Your task to perform on an android device: Clear the shopping cart on ebay. Search for "razer blade" on ebay, select the first entry, add it to the cart, then select checkout. Image 0: 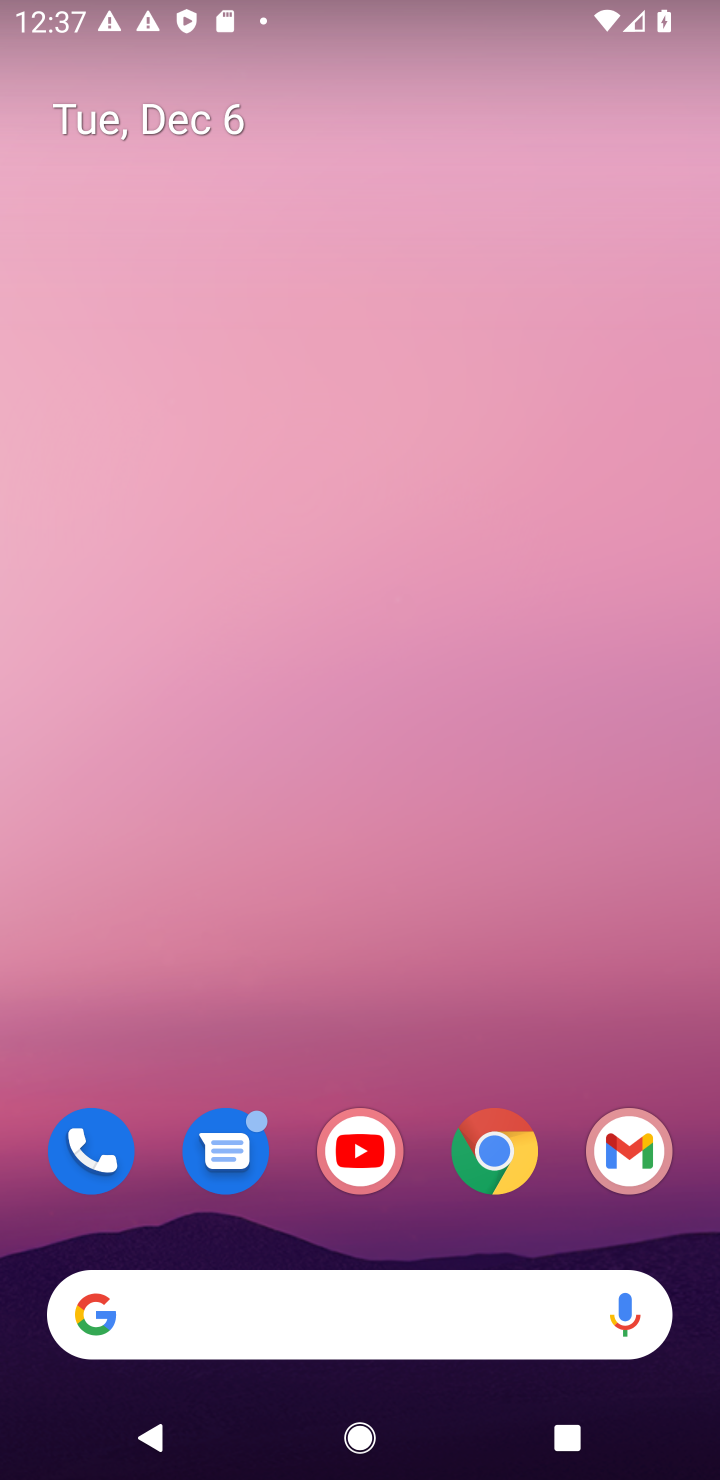
Step 0: click (487, 1174)
Your task to perform on an android device: Clear the shopping cart on ebay. Search for "razer blade" on ebay, select the first entry, add it to the cart, then select checkout. Image 1: 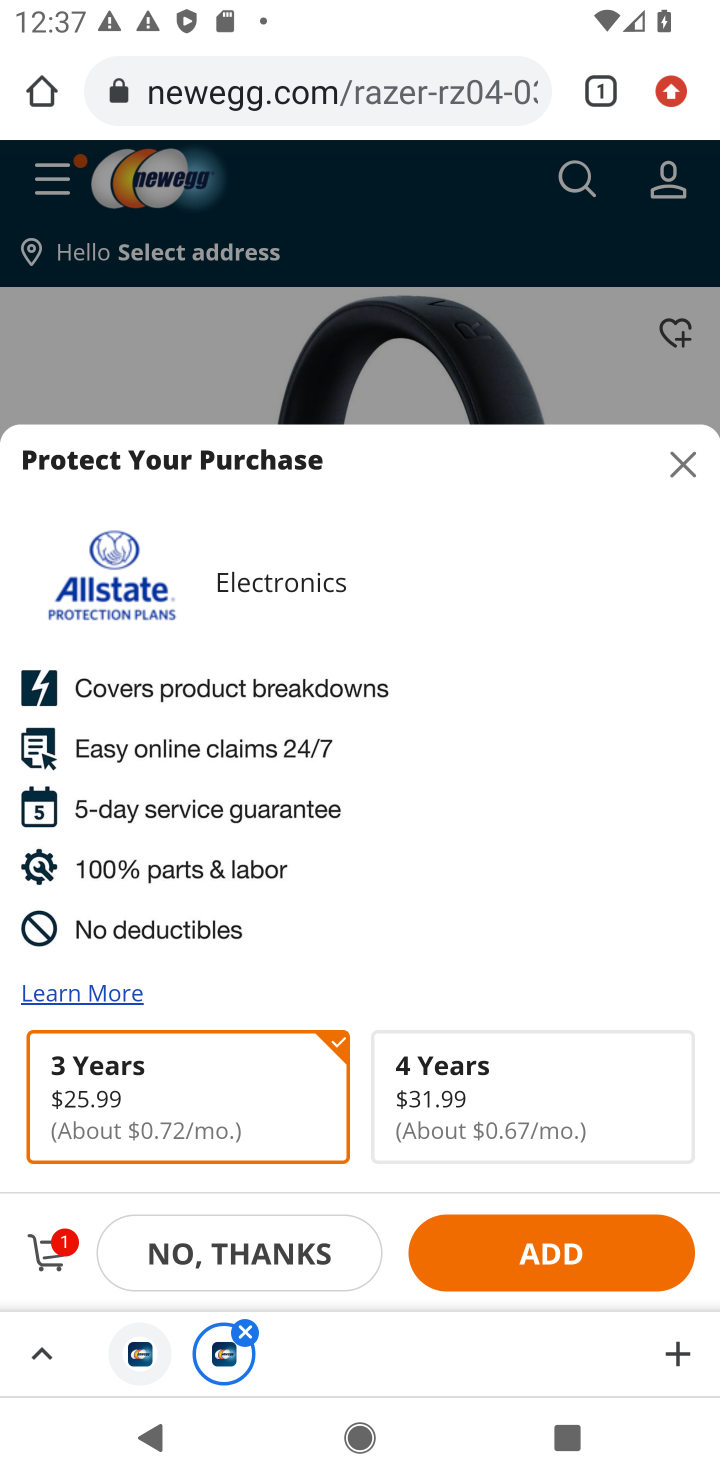
Step 1: click (260, 103)
Your task to perform on an android device: Clear the shopping cart on ebay. Search for "razer blade" on ebay, select the first entry, add it to the cart, then select checkout. Image 2: 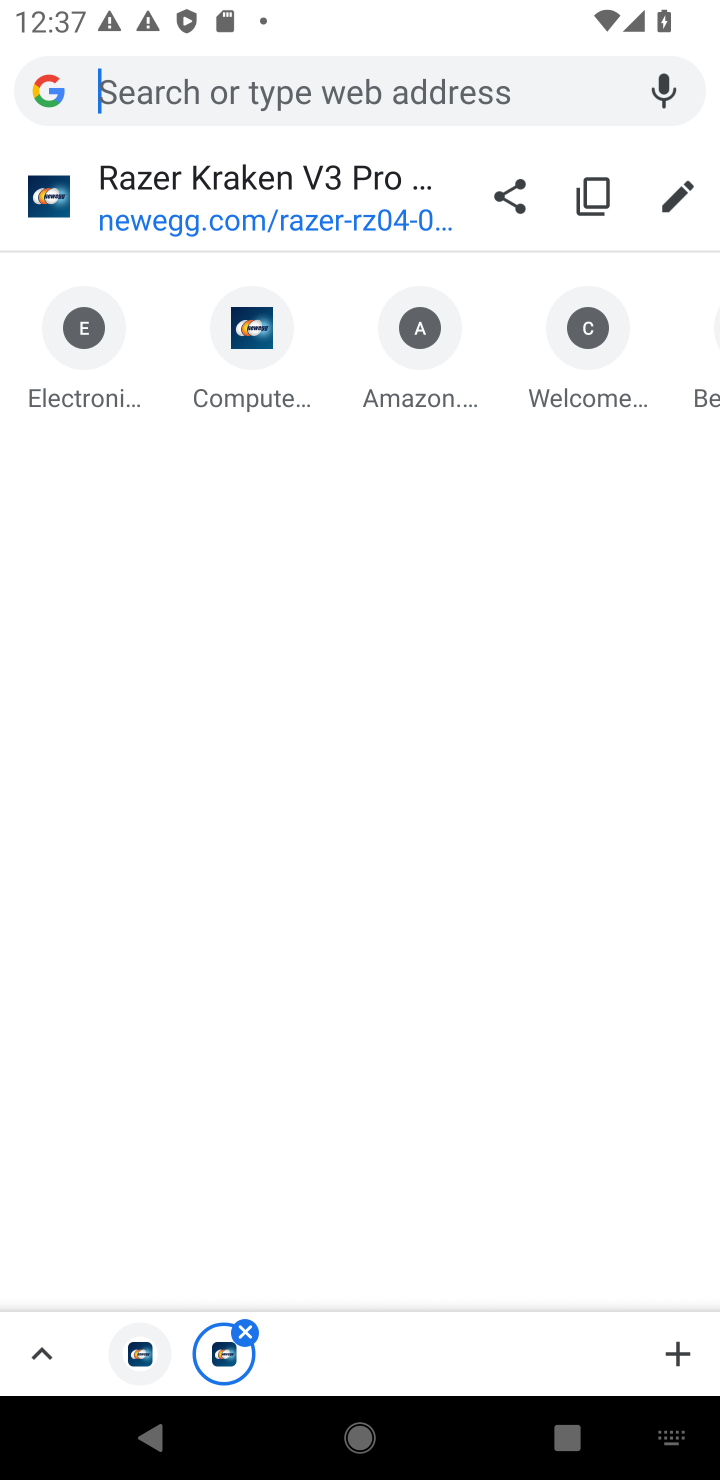
Step 2: type "ebay.com"
Your task to perform on an android device: Clear the shopping cart on ebay. Search for "razer blade" on ebay, select the first entry, add it to the cart, then select checkout. Image 3: 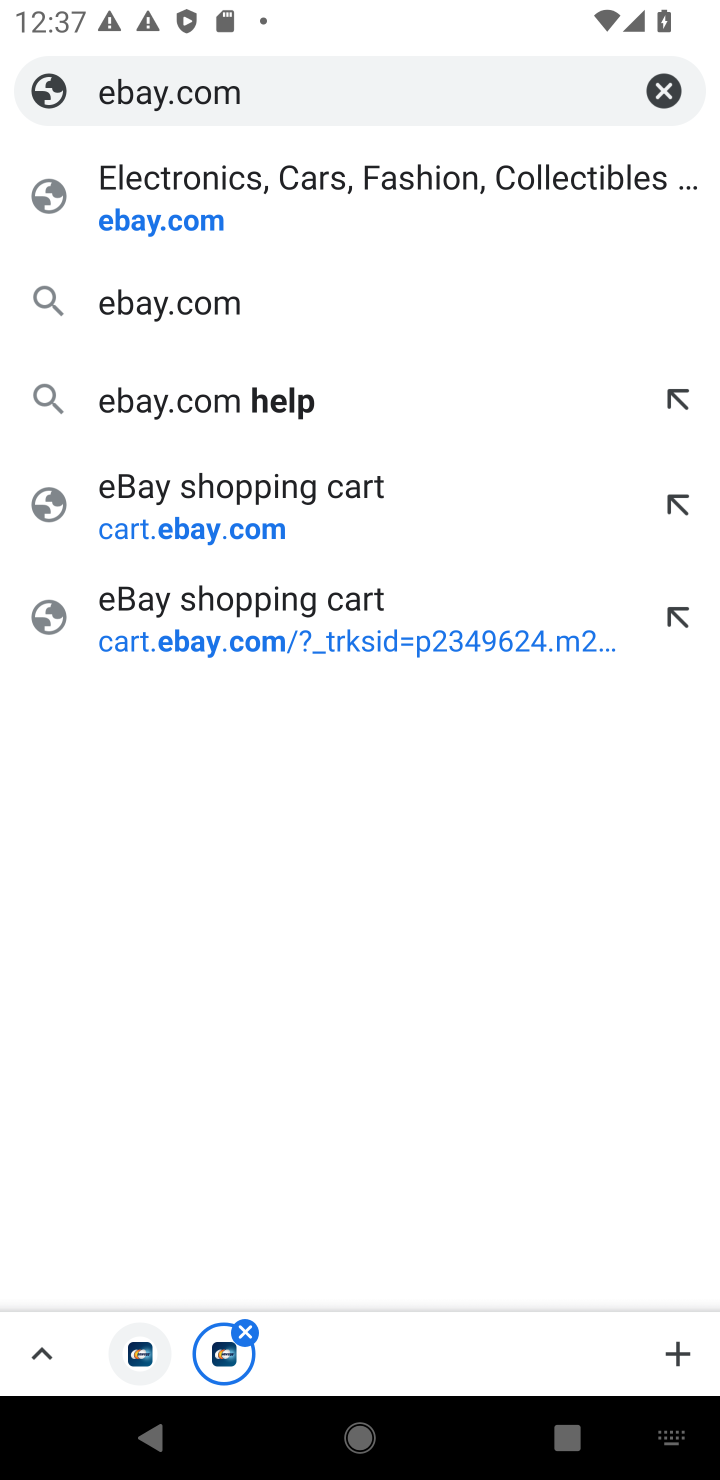
Step 3: click (140, 238)
Your task to perform on an android device: Clear the shopping cart on ebay. Search for "razer blade" on ebay, select the first entry, add it to the cart, then select checkout. Image 4: 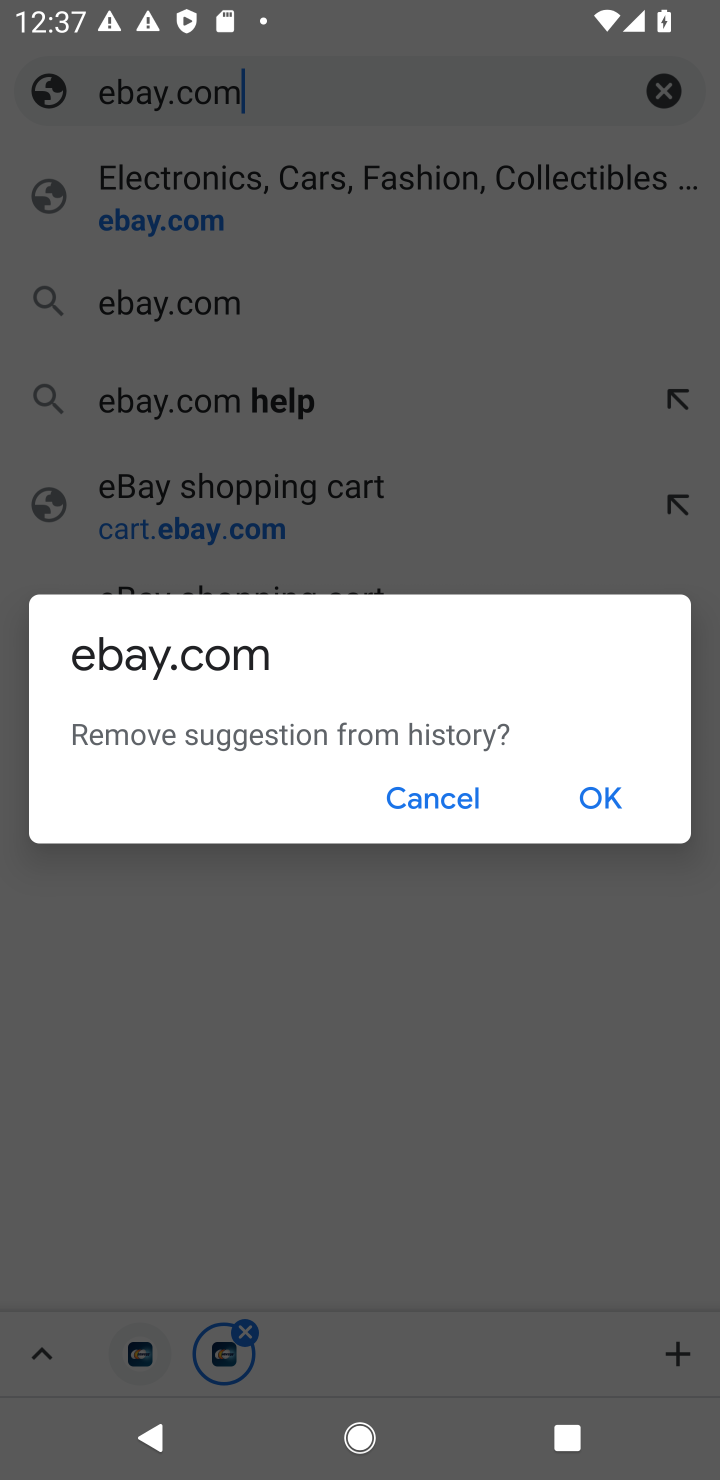
Step 4: click (410, 808)
Your task to perform on an android device: Clear the shopping cart on ebay. Search for "razer blade" on ebay, select the first entry, add it to the cart, then select checkout. Image 5: 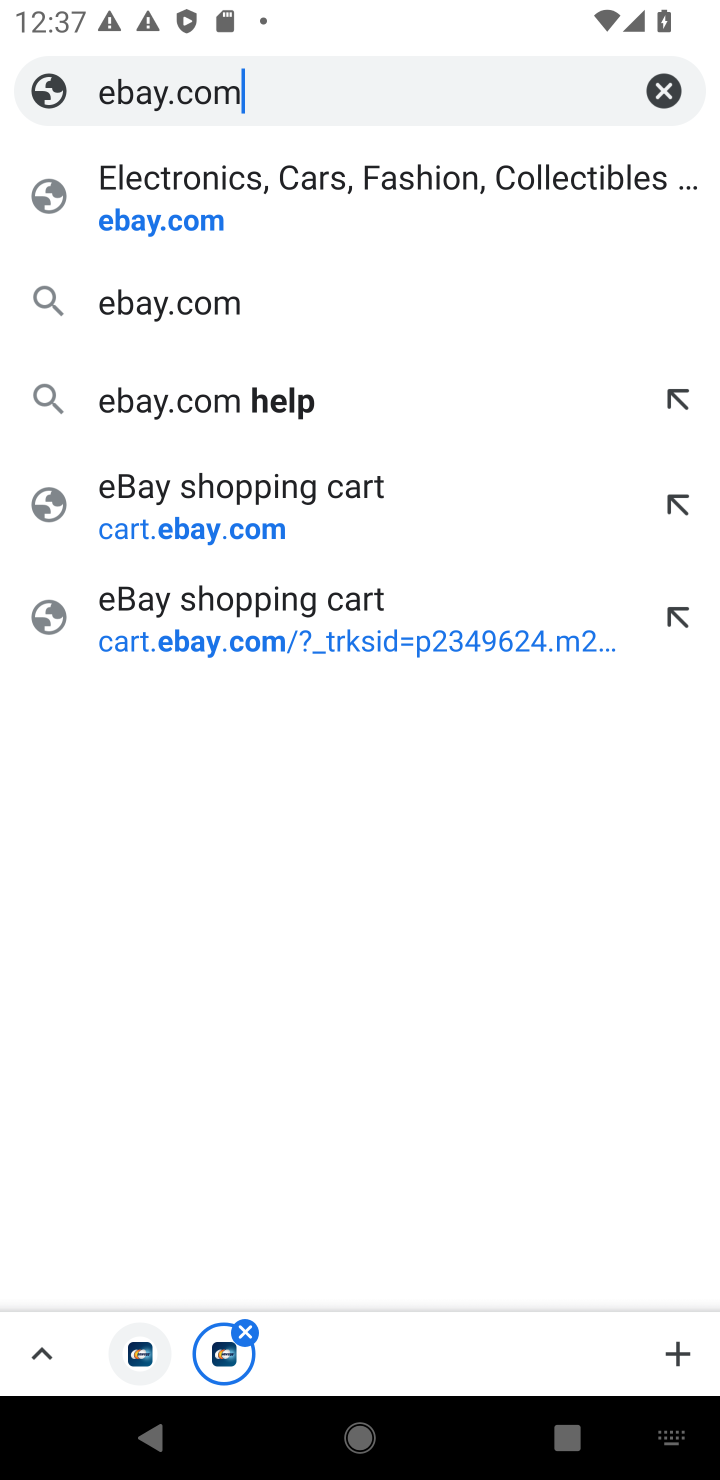
Step 5: click (137, 214)
Your task to perform on an android device: Clear the shopping cart on ebay. Search for "razer blade" on ebay, select the first entry, add it to the cart, then select checkout. Image 6: 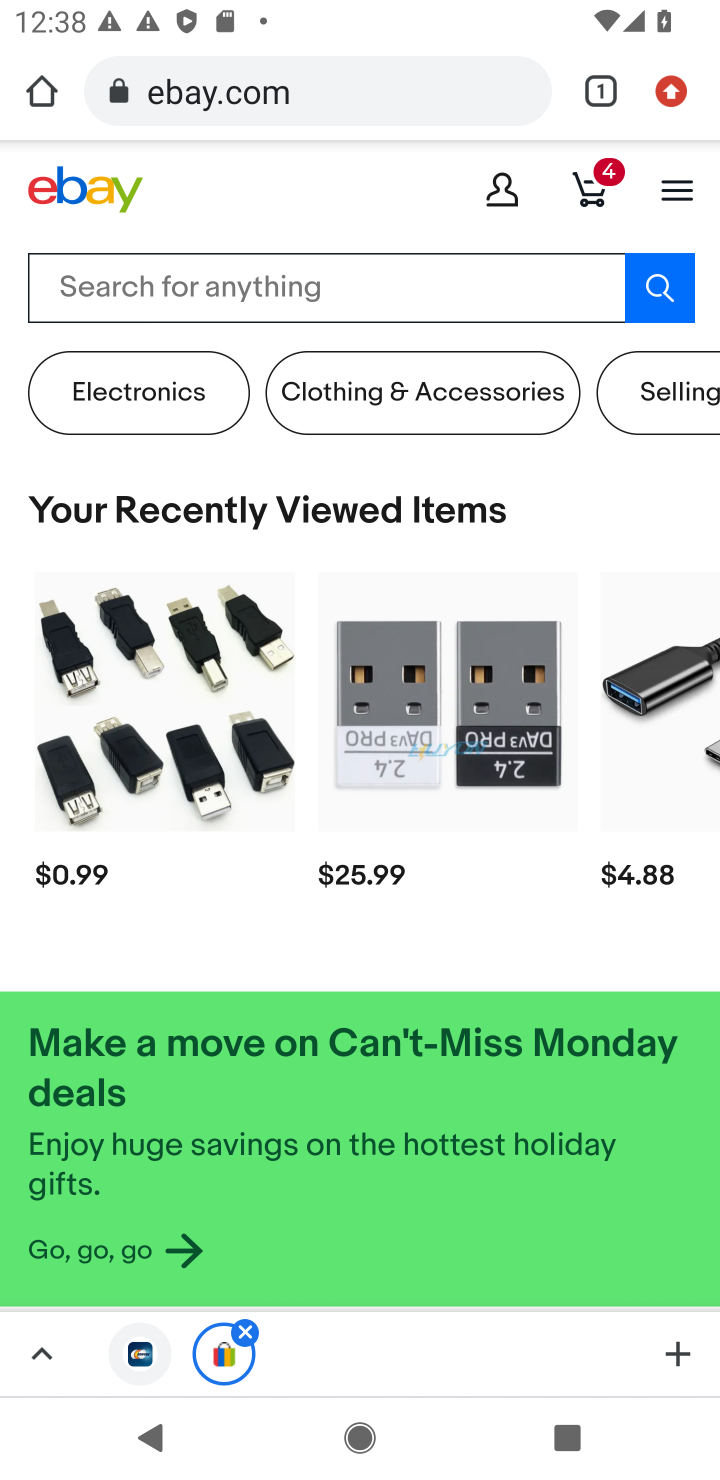
Step 6: click (599, 180)
Your task to perform on an android device: Clear the shopping cart on ebay. Search for "razer blade" on ebay, select the first entry, add it to the cart, then select checkout. Image 7: 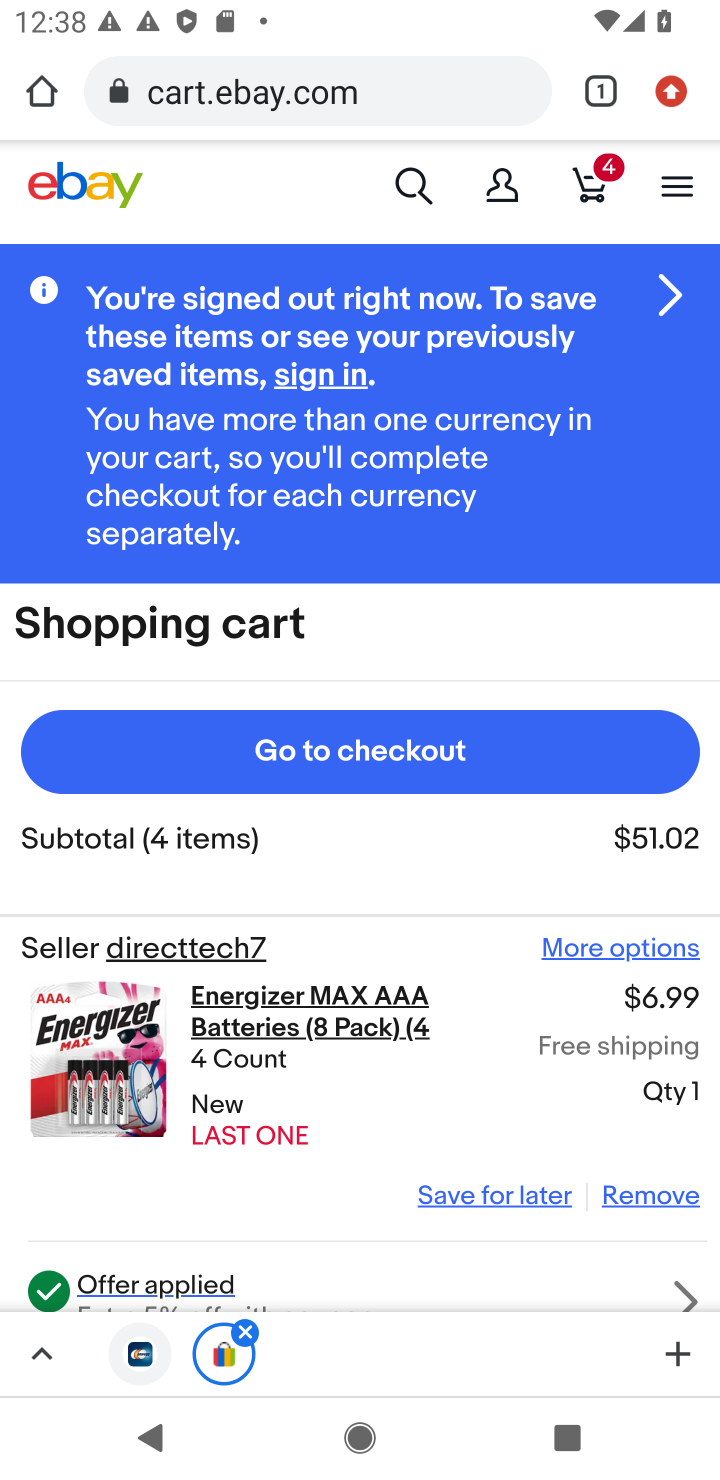
Step 7: click (666, 1198)
Your task to perform on an android device: Clear the shopping cart on ebay. Search for "razer blade" on ebay, select the first entry, add it to the cart, then select checkout. Image 8: 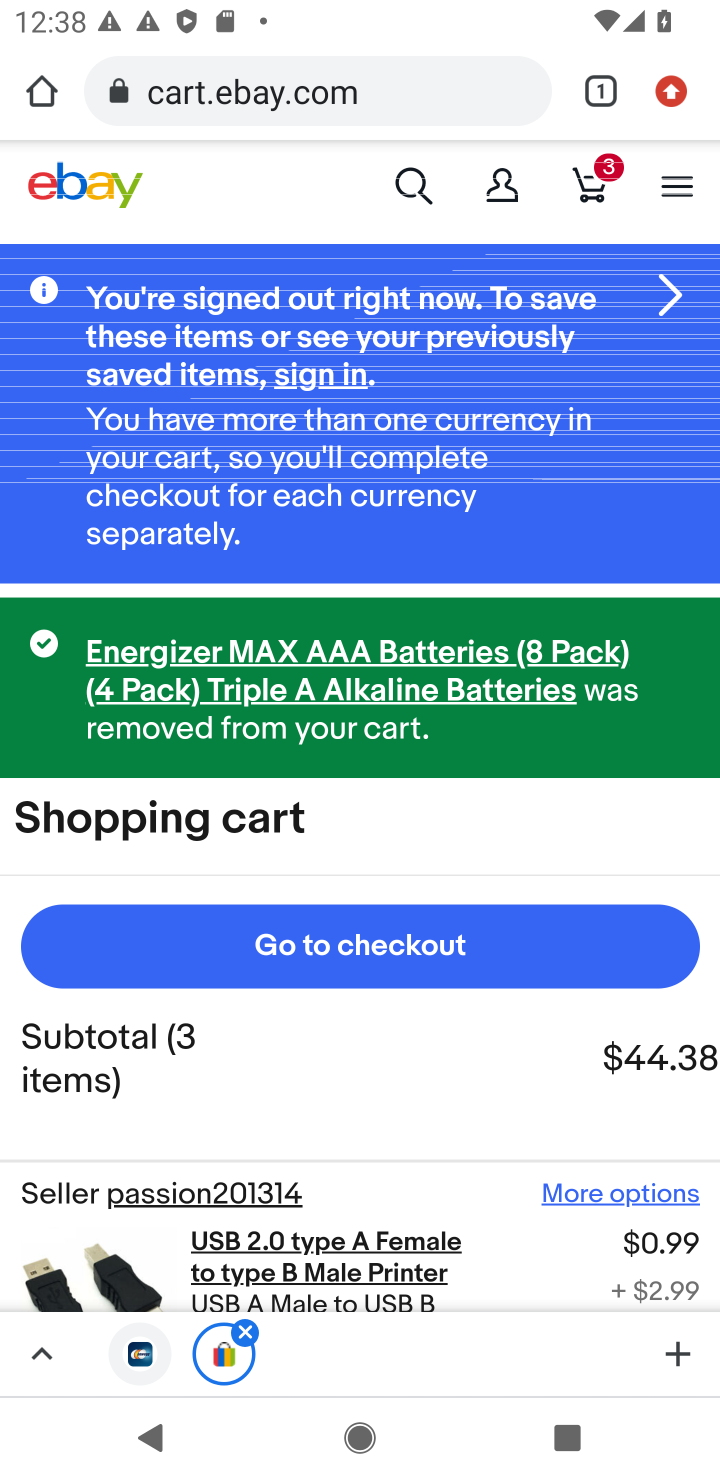
Step 8: drag from (665, 1085) to (625, 563)
Your task to perform on an android device: Clear the shopping cart on ebay. Search for "razer blade" on ebay, select the first entry, add it to the cart, then select checkout. Image 9: 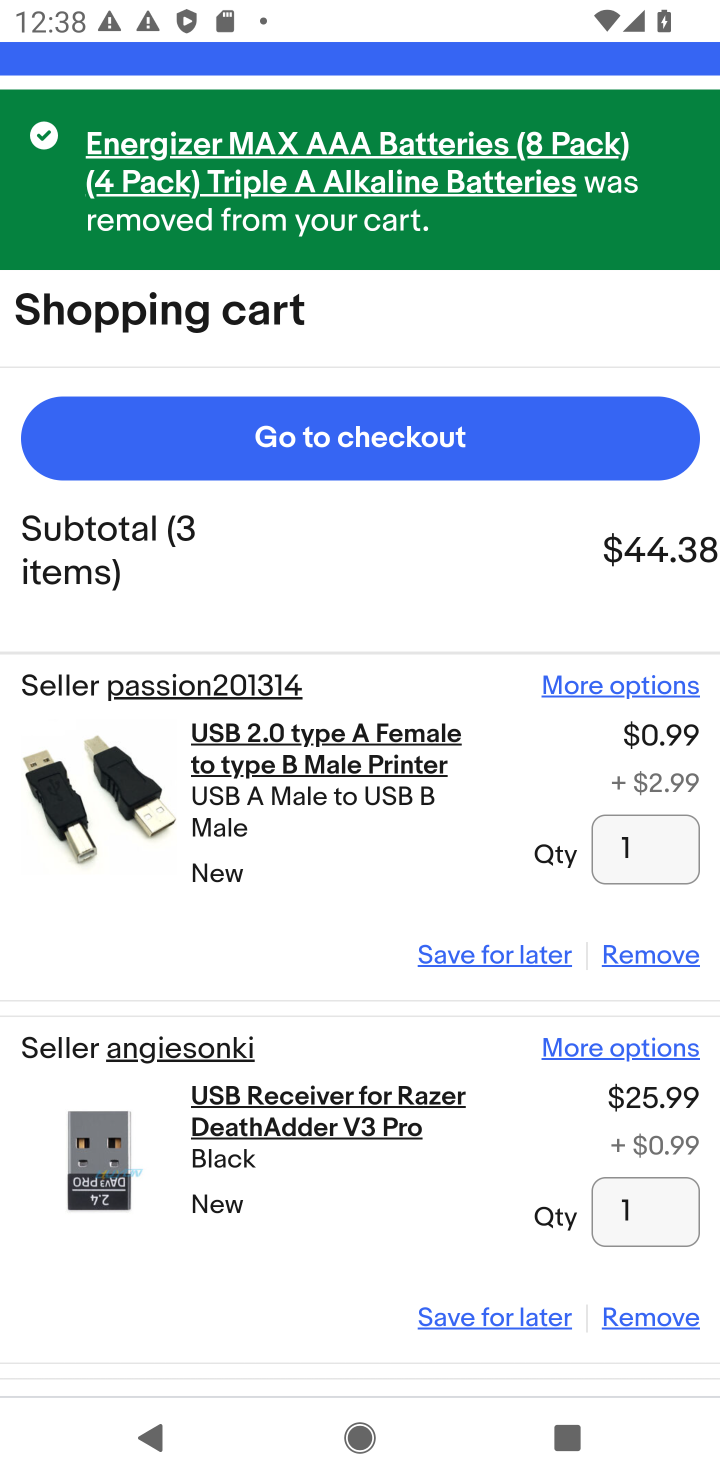
Step 9: click (633, 958)
Your task to perform on an android device: Clear the shopping cart on ebay. Search for "razer blade" on ebay, select the first entry, add it to the cart, then select checkout. Image 10: 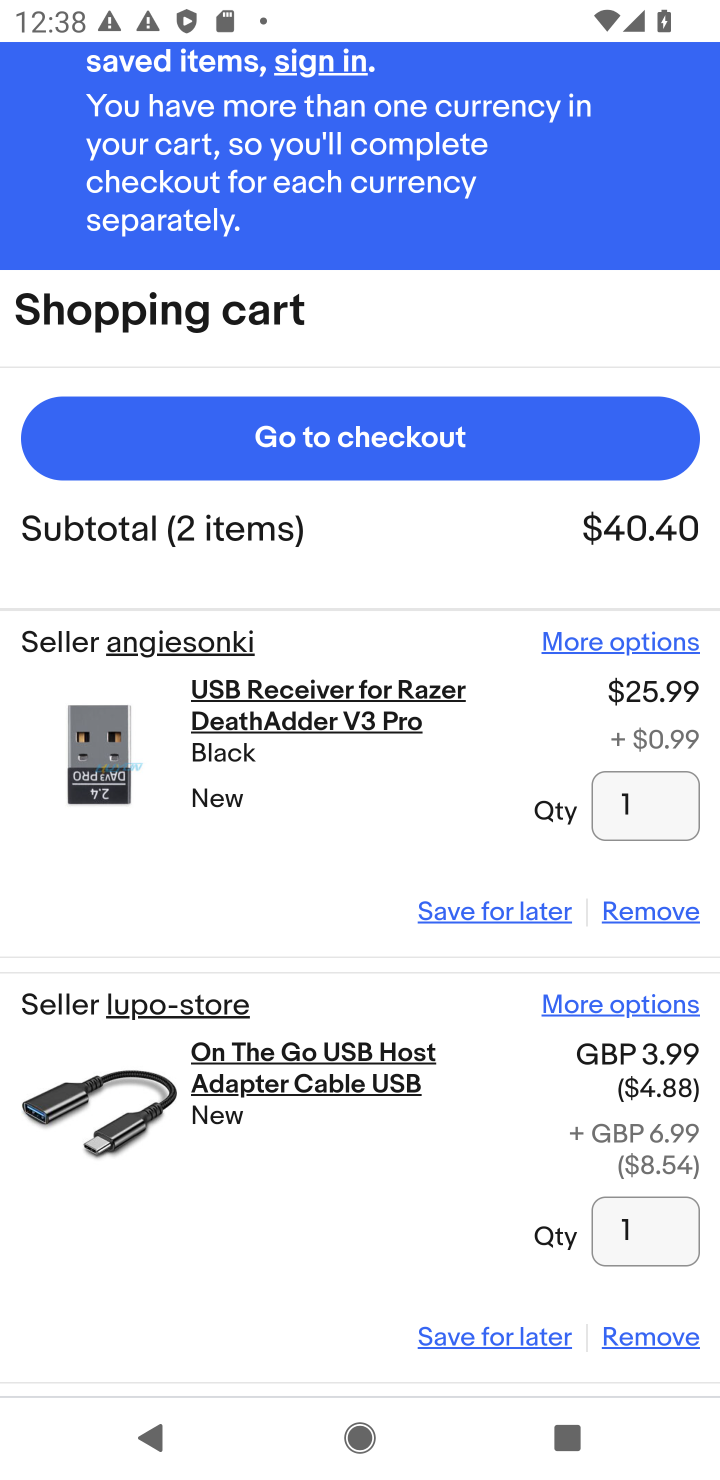
Step 10: click (635, 912)
Your task to perform on an android device: Clear the shopping cart on ebay. Search for "razer blade" on ebay, select the first entry, add it to the cart, then select checkout. Image 11: 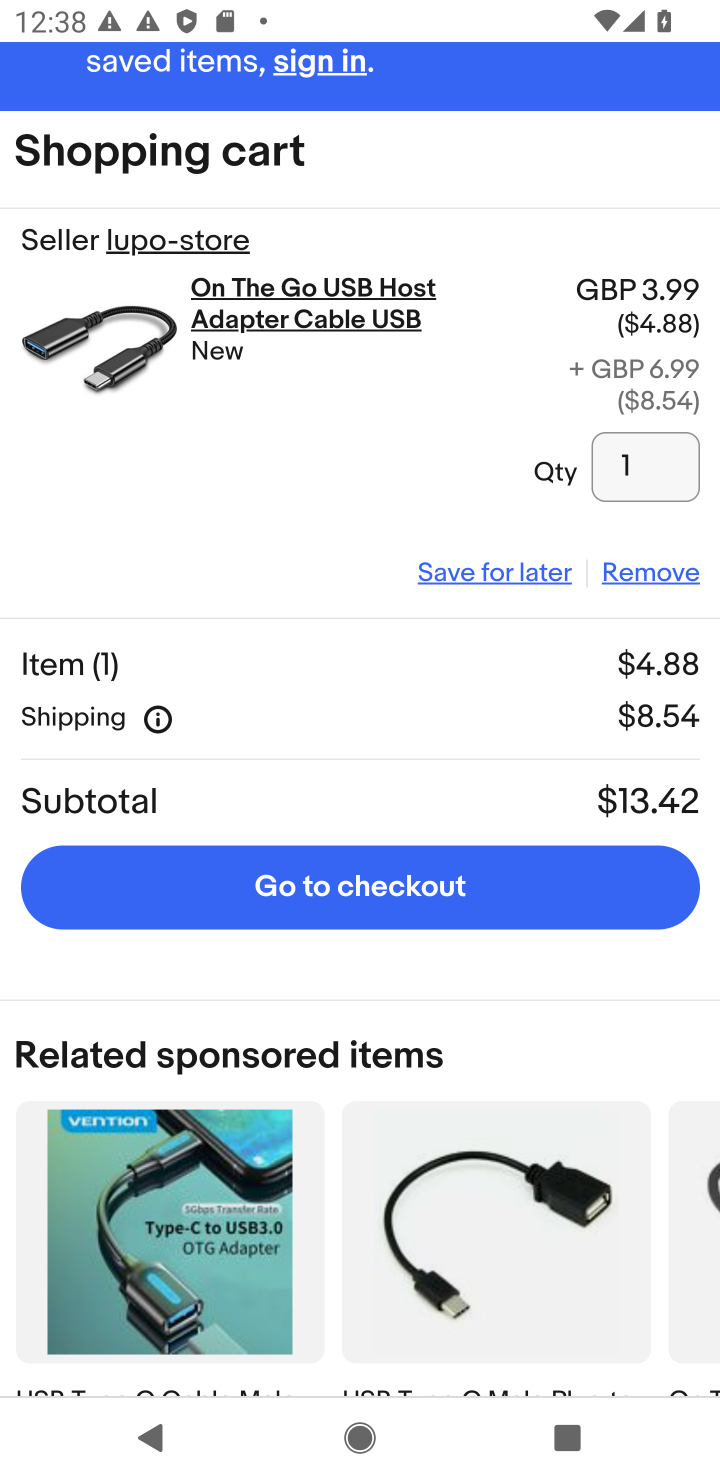
Step 11: click (639, 575)
Your task to perform on an android device: Clear the shopping cart on ebay. Search for "razer blade" on ebay, select the first entry, add it to the cart, then select checkout. Image 12: 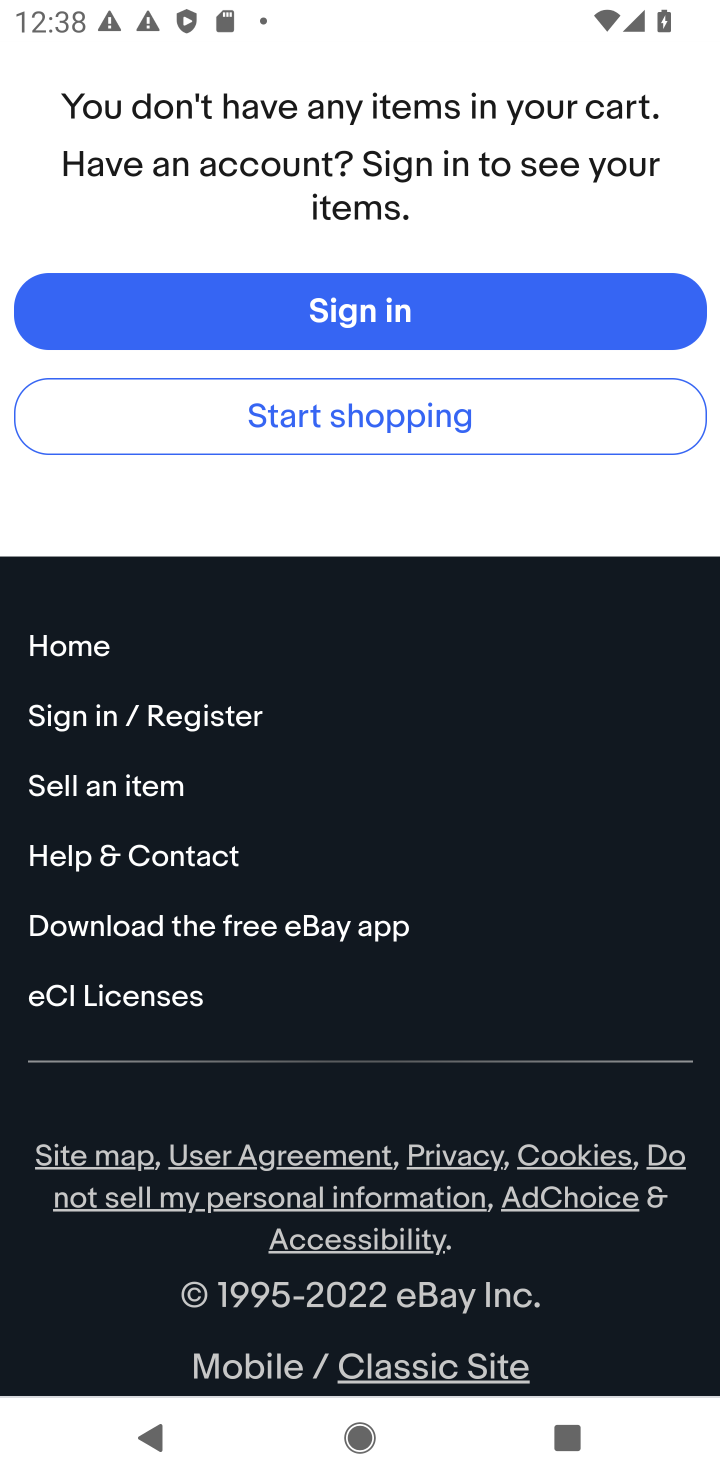
Step 12: drag from (460, 551) to (439, 1055)
Your task to perform on an android device: Clear the shopping cart on ebay. Search for "razer blade" on ebay, select the first entry, add it to the cart, then select checkout. Image 13: 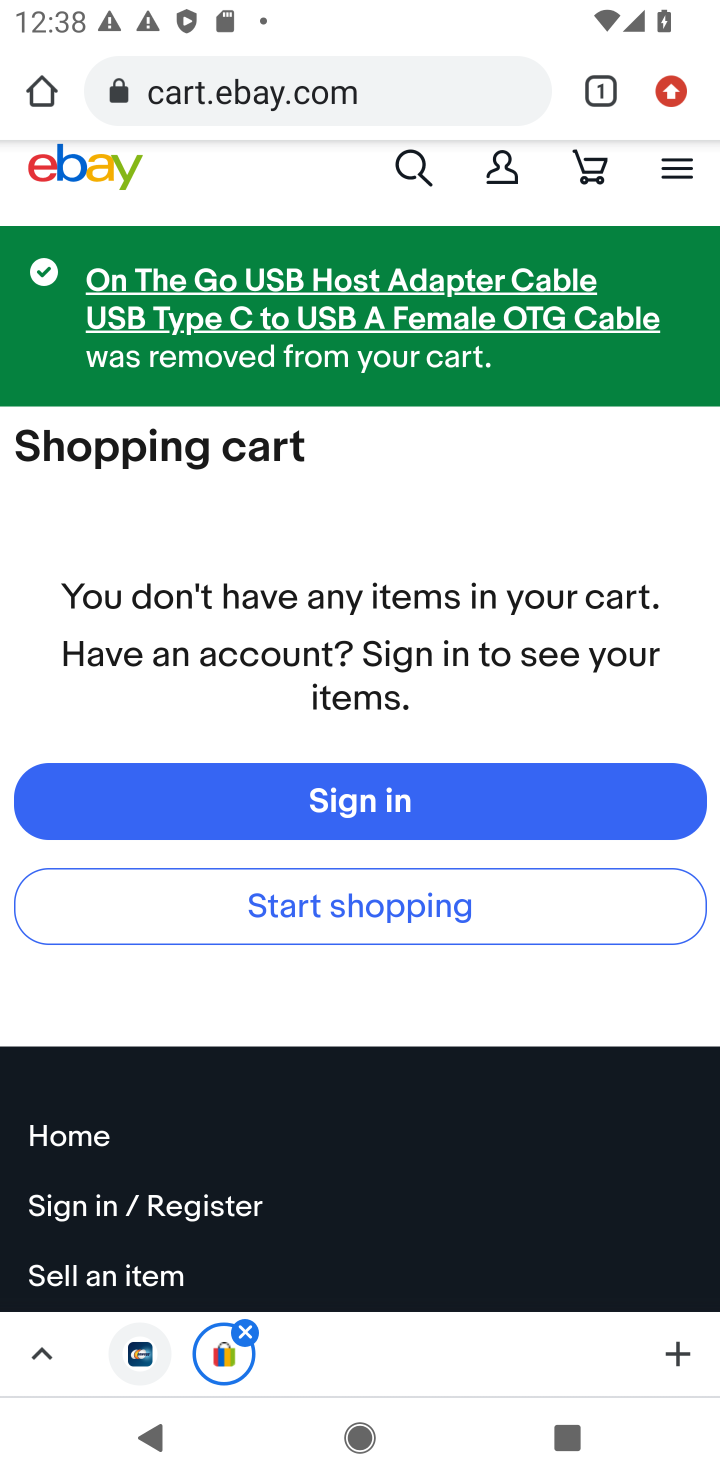
Step 13: click (408, 175)
Your task to perform on an android device: Clear the shopping cart on ebay. Search for "razer blade" on ebay, select the first entry, add it to the cart, then select checkout. Image 14: 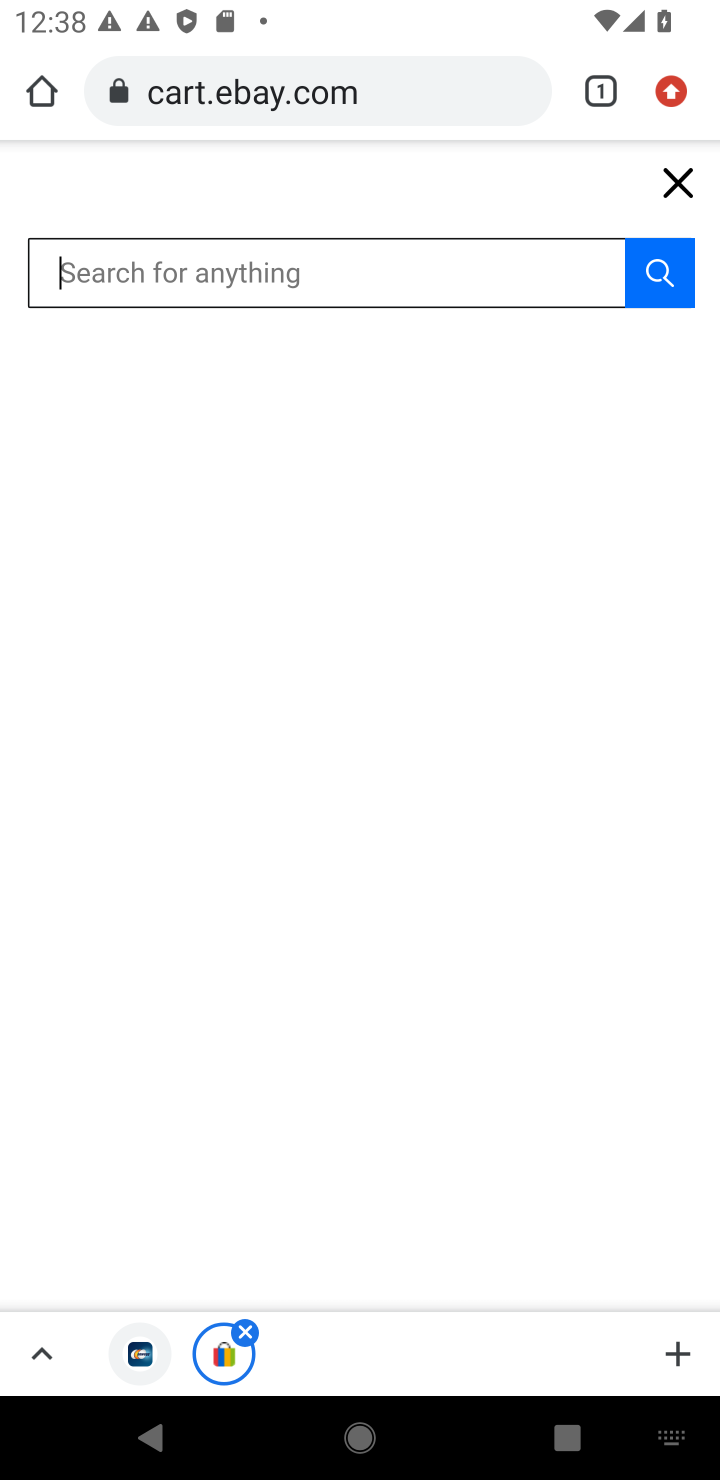
Step 14: type "razer blade"
Your task to perform on an android device: Clear the shopping cart on ebay. Search for "razer blade" on ebay, select the first entry, add it to the cart, then select checkout. Image 15: 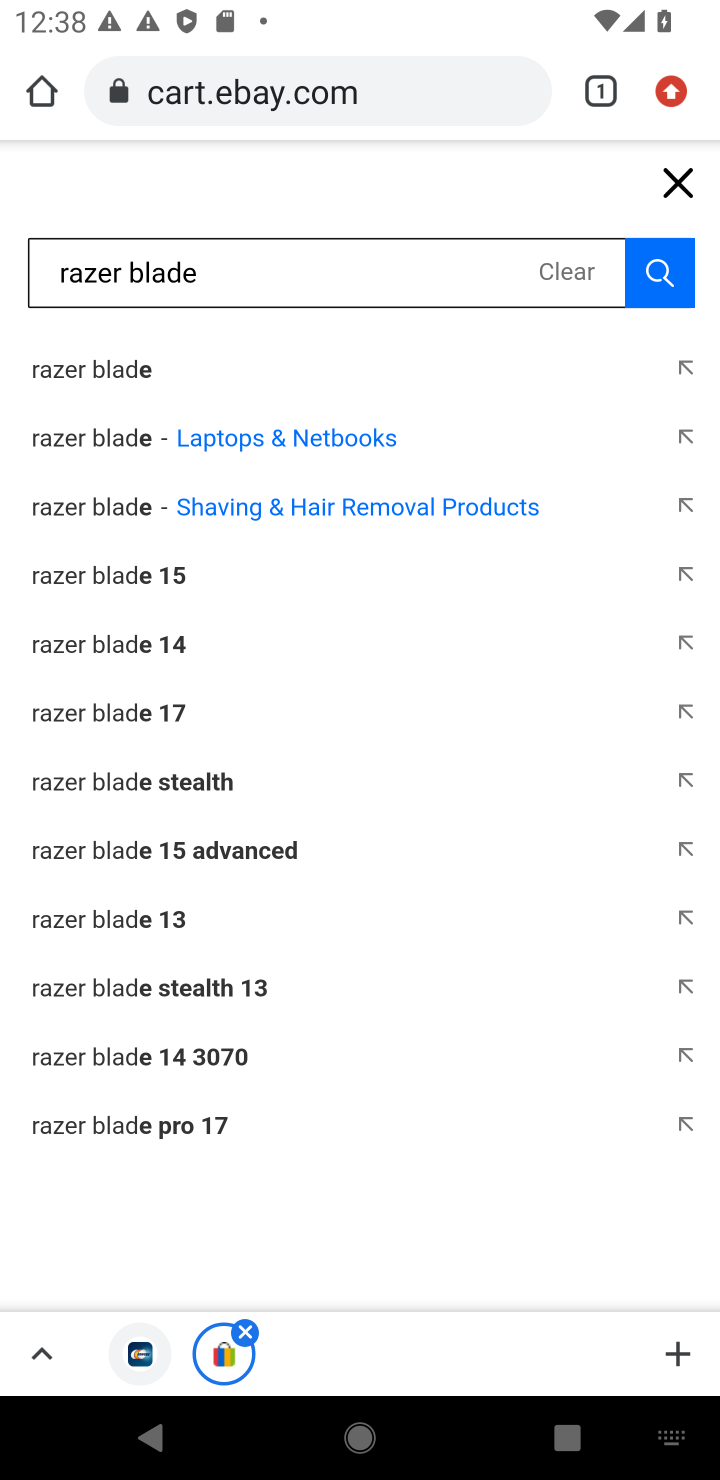
Step 15: click (109, 384)
Your task to perform on an android device: Clear the shopping cart on ebay. Search for "razer blade" on ebay, select the first entry, add it to the cart, then select checkout. Image 16: 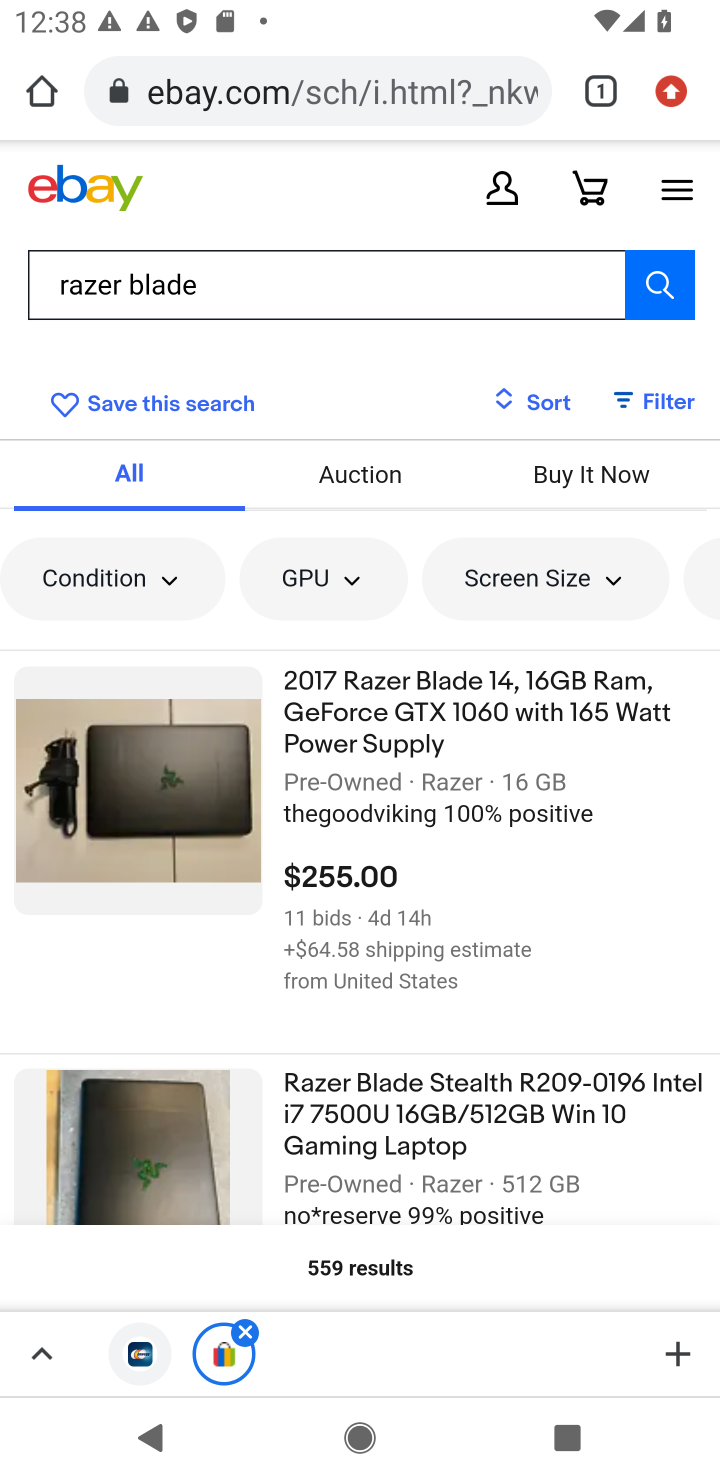
Step 16: task complete